Your task to perform on an android device: show emergency info Image 0: 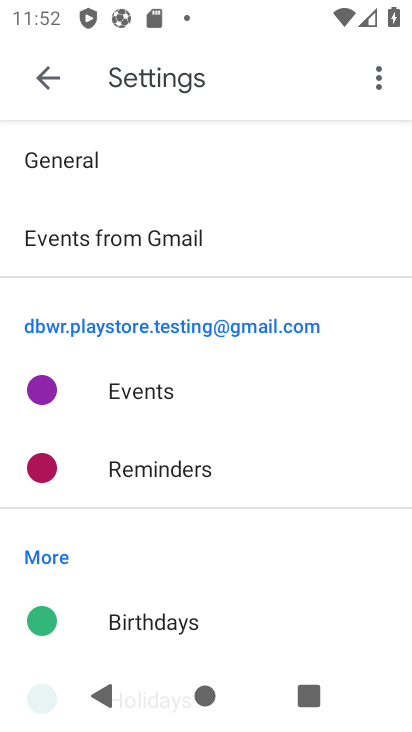
Step 0: press home button
Your task to perform on an android device: show emergency info Image 1: 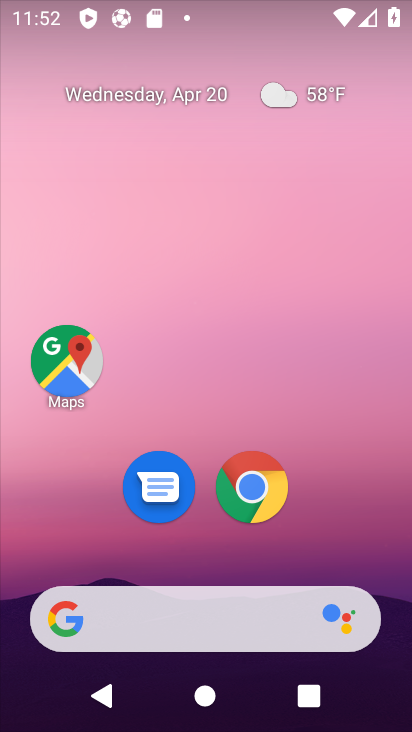
Step 1: drag from (332, 530) to (347, 0)
Your task to perform on an android device: show emergency info Image 2: 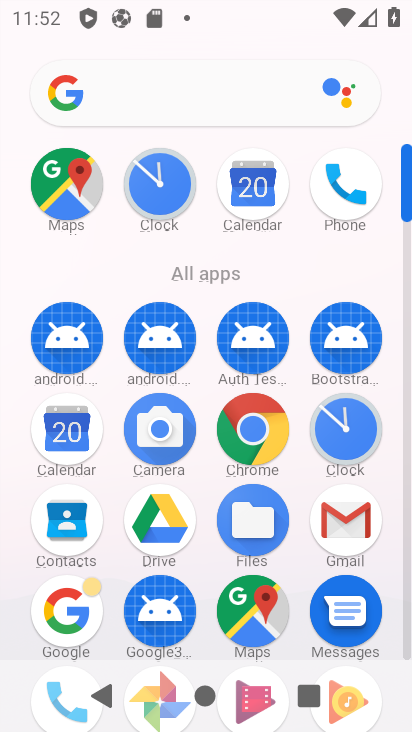
Step 2: drag from (405, 426) to (408, 359)
Your task to perform on an android device: show emergency info Image 3: 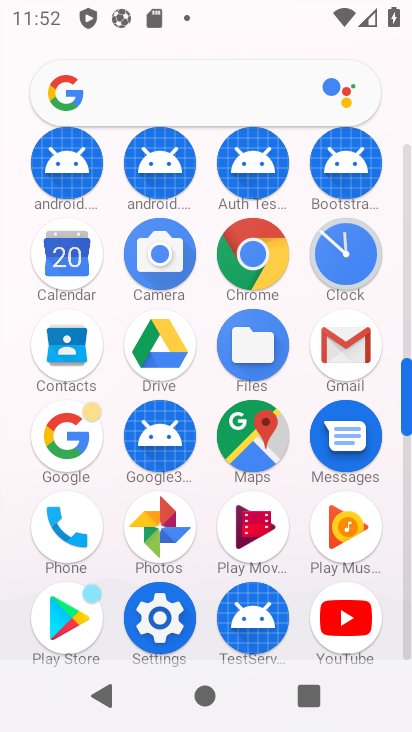
Step 3: click (169, 619)
Your task to perform on an android device: show emergency info Image 4: 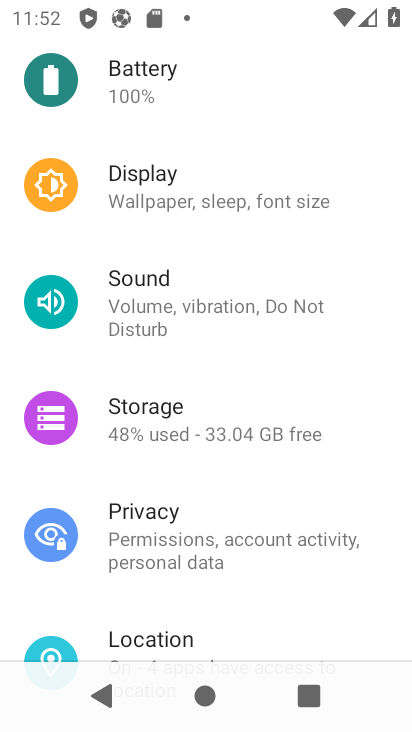
Step 4: drag from (313, 557) to (313, 42)
Your task to perform on an android device: show emergency info Image 5: 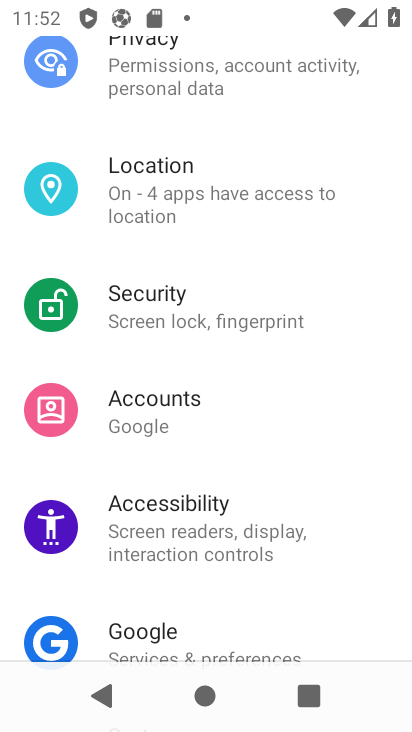
Step 5: drag from (257, 511) to (257, 157)
Your task to perform on an android device: show emergency info Image 6: 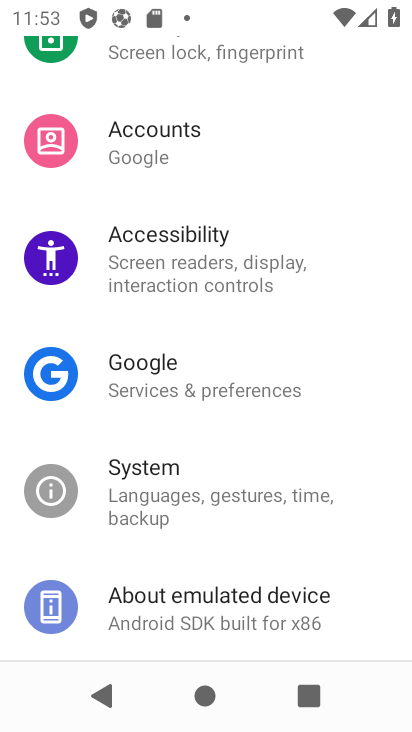
Step 6: click (199, 621)
Your task to perform on an android device: show emergency info Image 7: 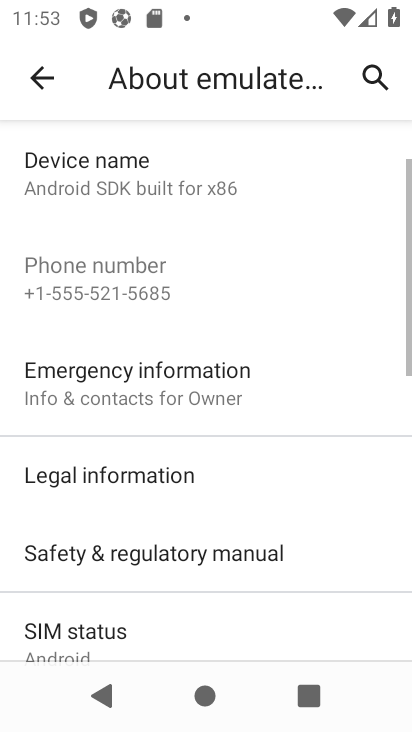
Step 7: click (105, 388)
Your task to perform on an android device: show emergency info Image 8: 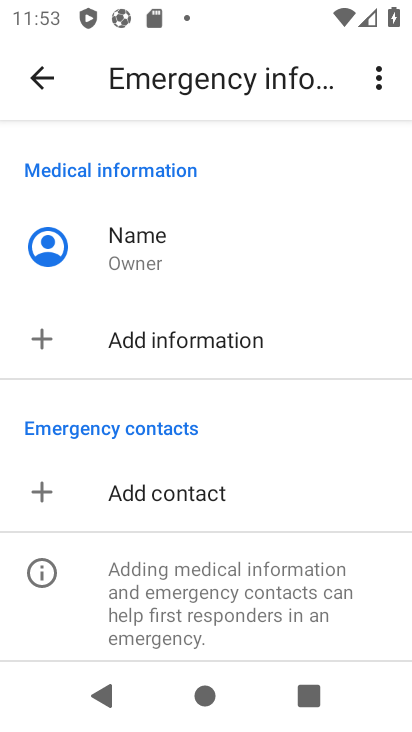
Step 8: task complete